Your task to perform on an android device: Clear the cart on costco. Search for logitech g pro on costco, select the first entry, and add it to the cart. Image 0: 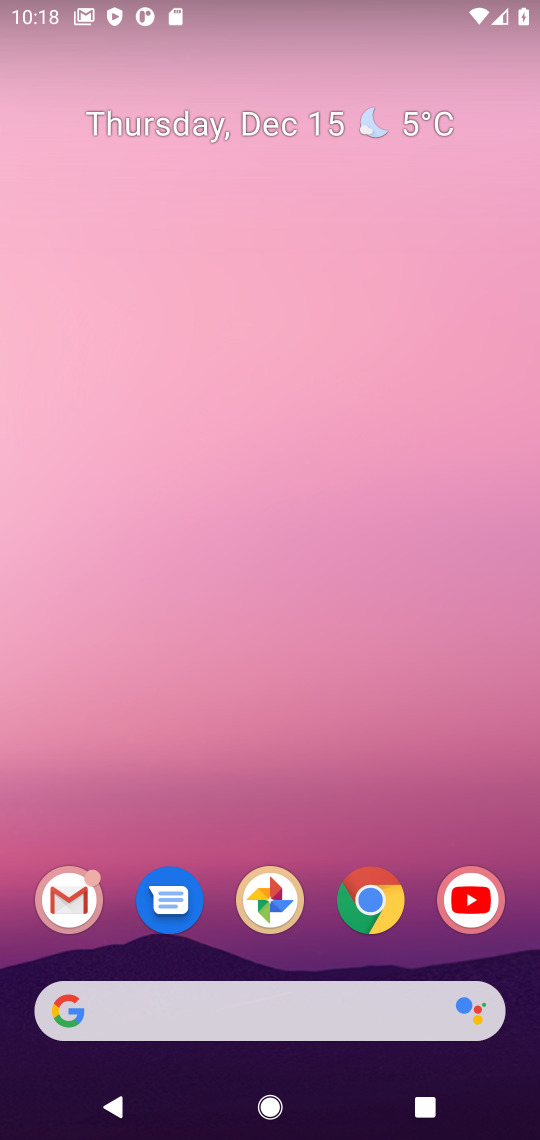
Step 0: click (378, 903)
Your task to perform on an android device: Clear the cart on costco. Search for logitech g pro on costco, select the first entry, and add it to the cart. Image 1: 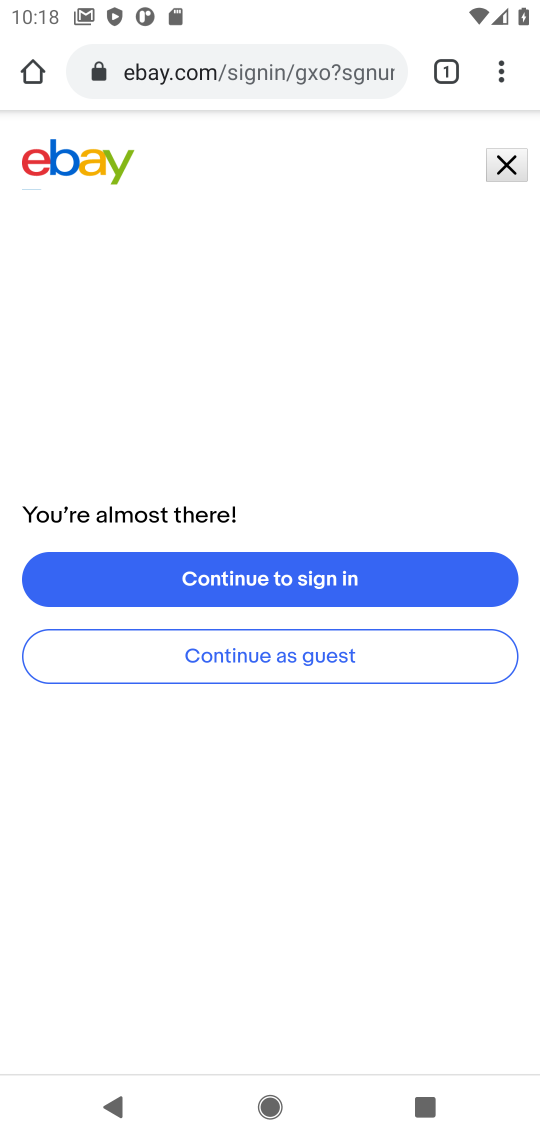
Step 1: click (248, 84)
Your task to perform on an android device: Clear the cart on costco. Search for logitech g pro on costco, select the first entry, and add it to the cart. Image 2: 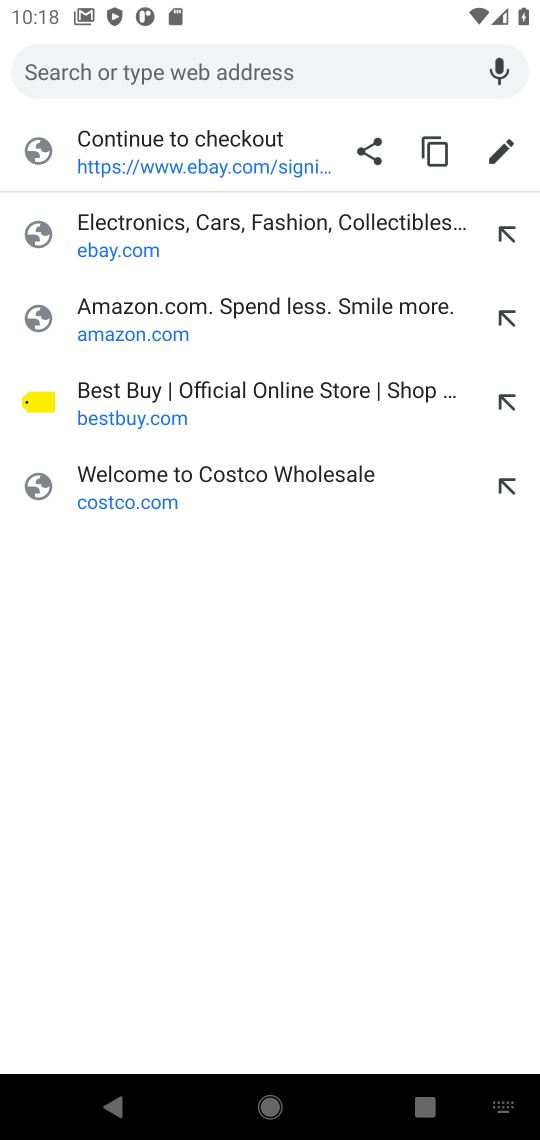
Step 2: type ""
Your task to perform on an android device: Clear the cart on costco. Search for logitech g pro on costco, select the first entry, and add it to the cart. Image 3: 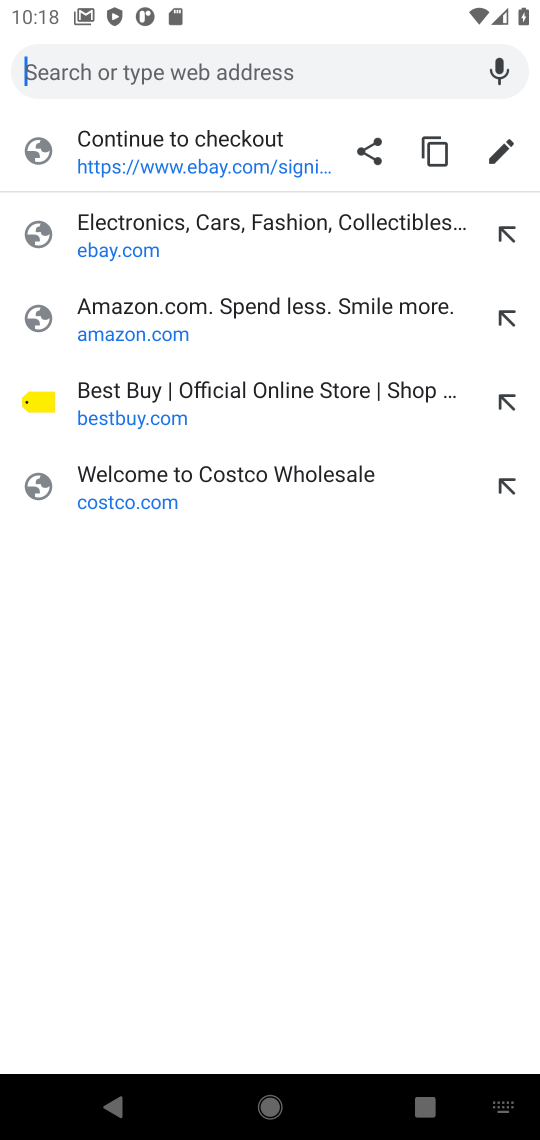
Step 3: type "costco"
Your task to perform on an android device: Clear the cart on costco. Search for logitech g pro on costco, select the first entry, and add it to the cart. Image 4: 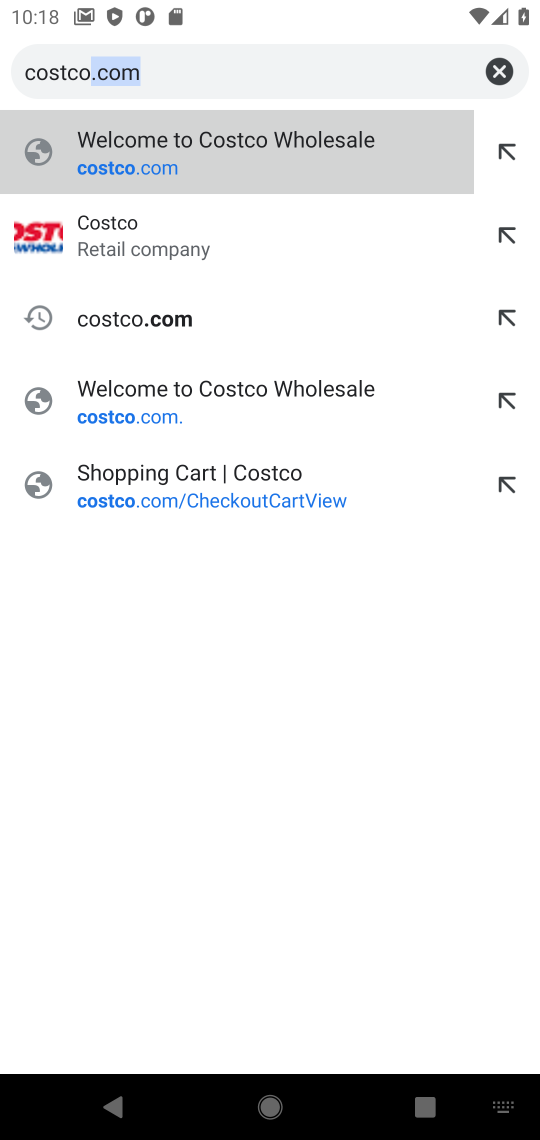
Step 4: click (138, 157)
Your task to perform on an android device: Clear the cart on costco. Search for logitech g pro on costco, select the first entry, and add it to the cart. Image 5: 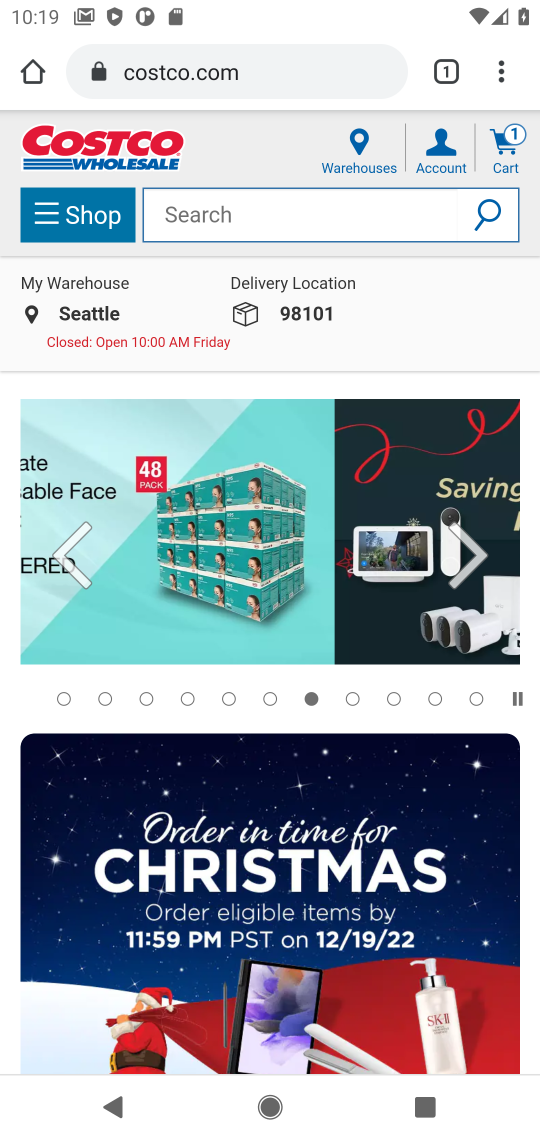
Step 5: click (308, 230)
Your task to perform on an android device: Clear the cart on costco. Search for logitech g pro on costco, select the first entry, and add it to the cart. Image 6: 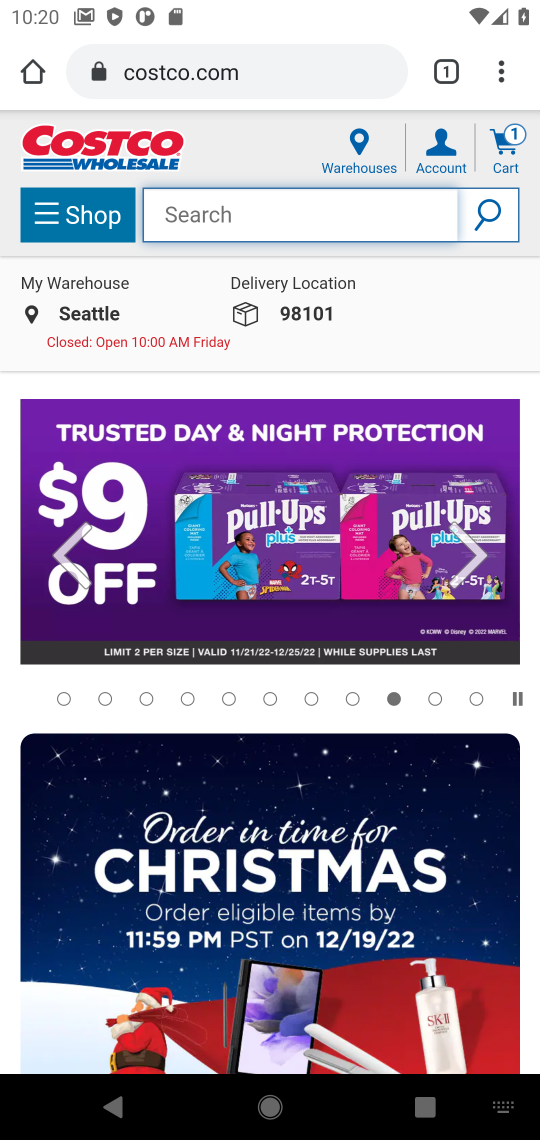
Step 6: type "logitech g pro"
Your task to perform on an android device: Clear the cart on costco. Search for logitech g pro on costco, select the first entry, and add it to the cart. Image 7: 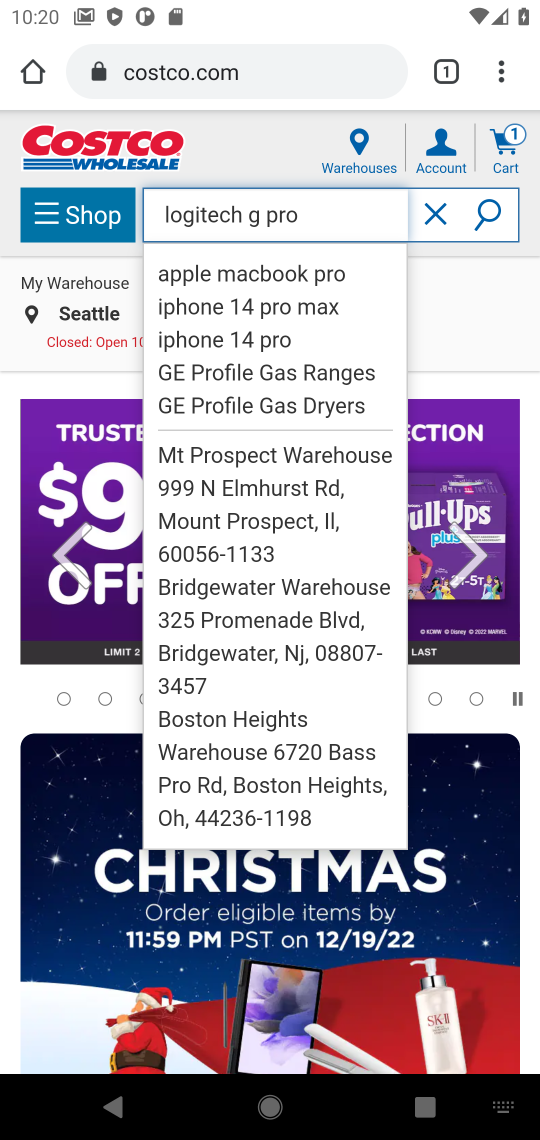
Step 7: press enter
Your task to perform on an android device: Clear the cart on costco. Search for logitech g pro on costco, select the first entry, and add it to the cart. Image 8: 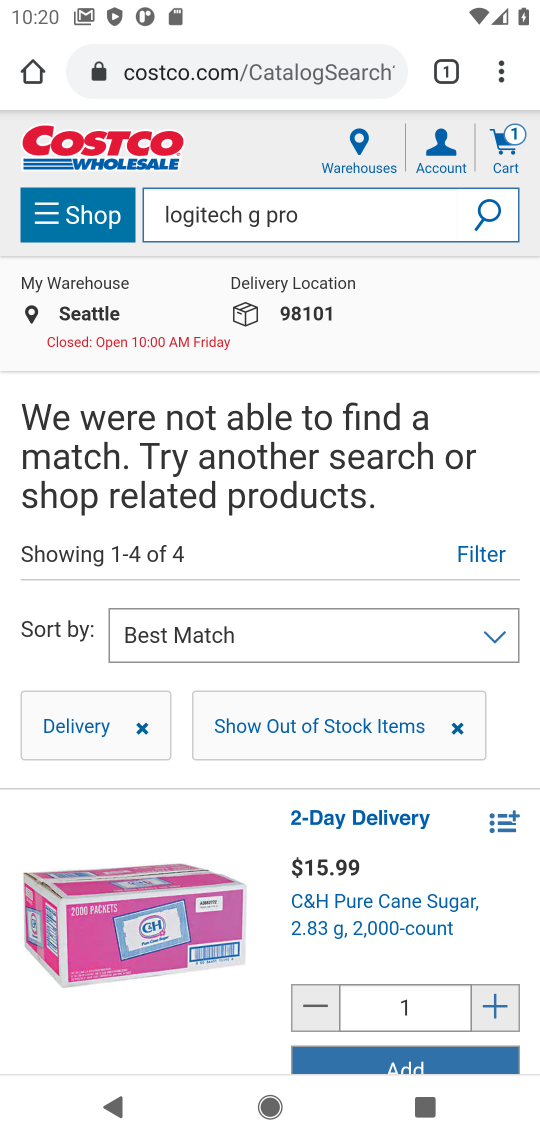
Step 8: click (238, 994)
Your task to perform on an android device: Clear the cart on costco. Search for logitech g pro on costco, select the first entry, and add it to the cart. Image 9: 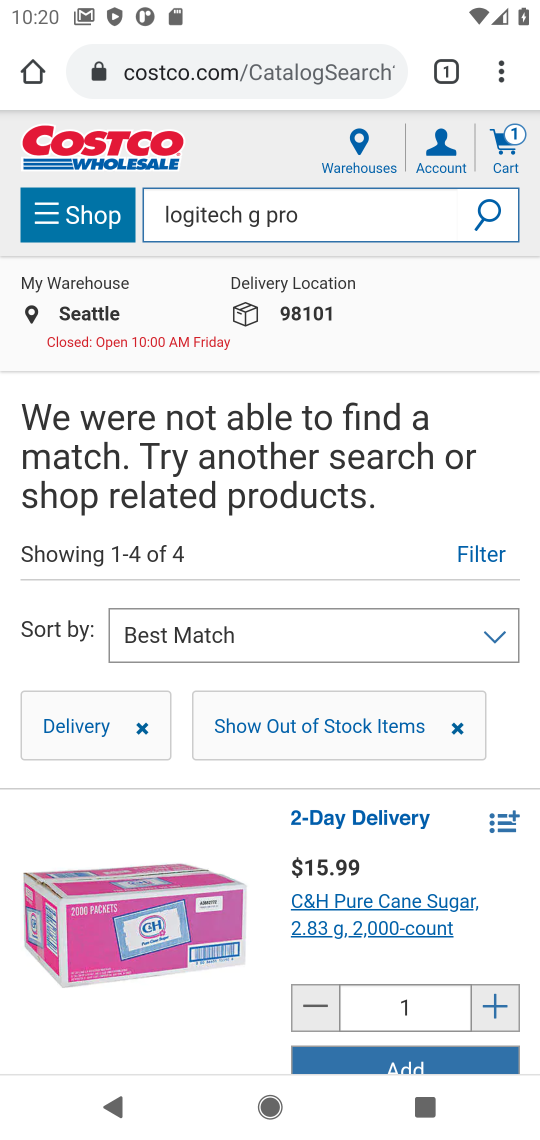
Step 9: click (509, 143)
Your task to perform on an android device: Clear the cart on costco. Search for logitech g pro on costco, select the first entry, and add it to the cart. Image 10: 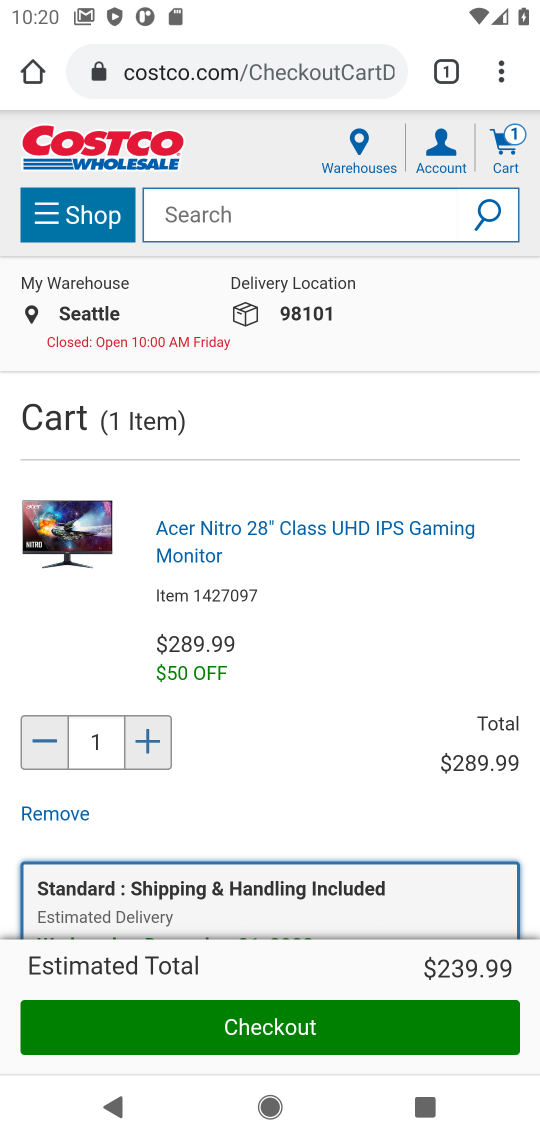
Step 10: click (51, 742)
Your task to perform on an android device: Clear the cart on costco. Search for logitech g pro on costco, select the first entry, and add it to the cart. Image 11: 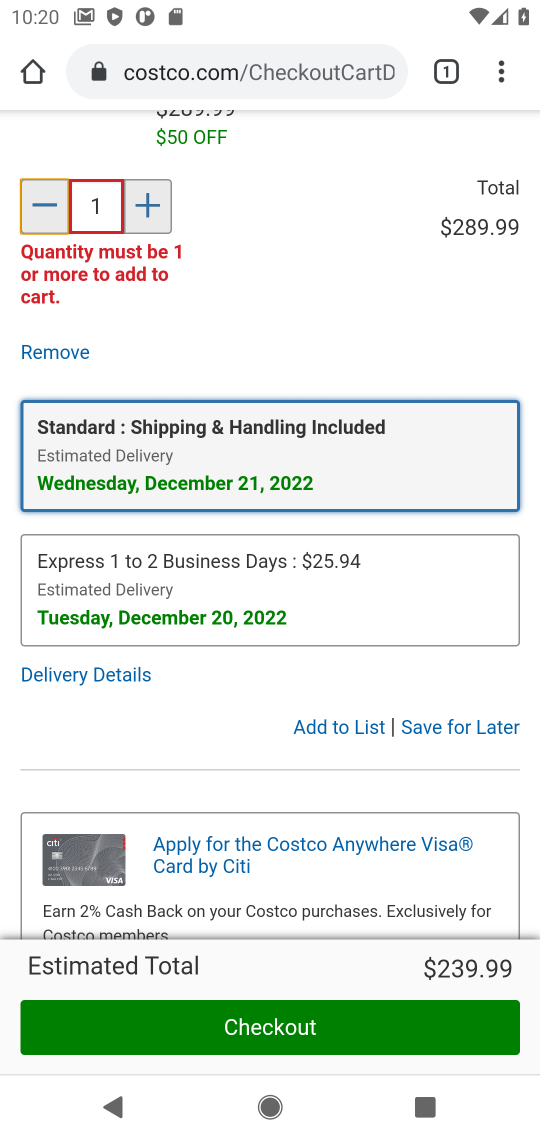
Step 11: task complete